Your task to perform on an android device: open a bookmark in the chrome app Image 0: 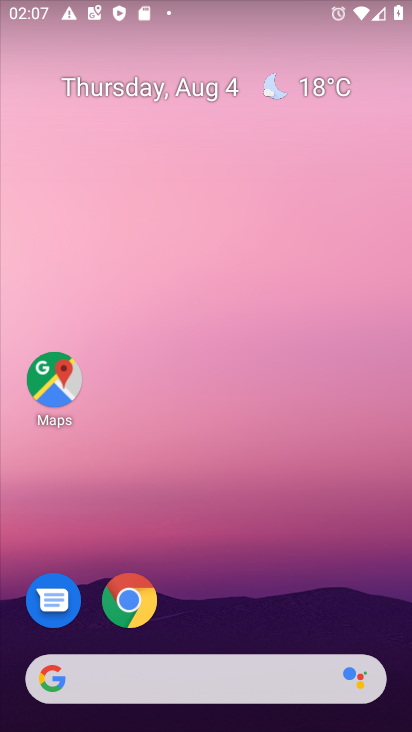
Step 0: press home button
Your task to perform on an android device: open a bookmark in the chrome app Image 1: 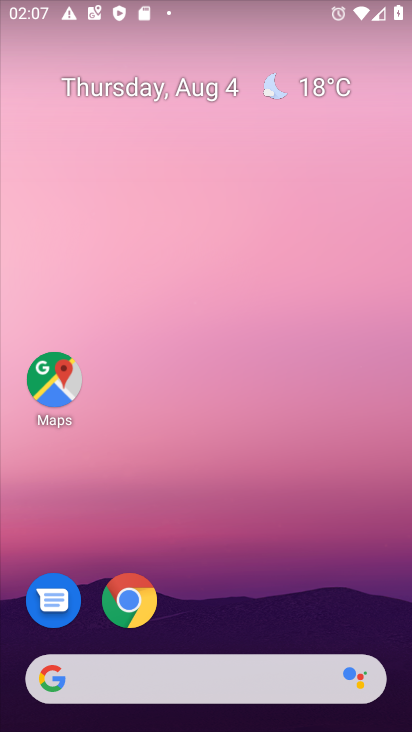
Step 1: click (131, 602)
Your task to perform on an android device: open a bookmark in the chrome app Image 2: 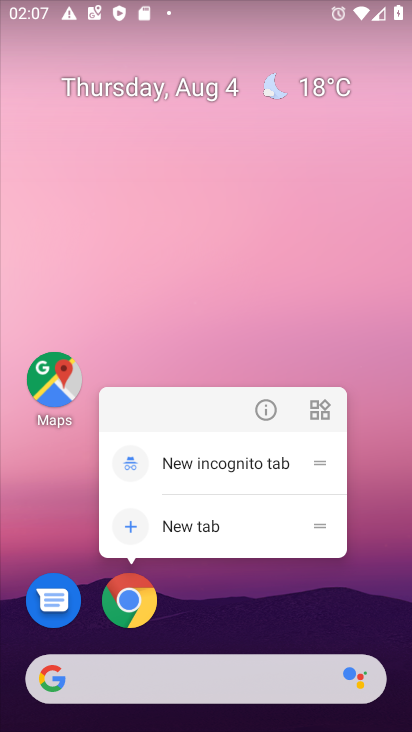
Step 2: click (131, 602)
Your task to perform on an android device: open a bookmark in the chrome app Image 3: 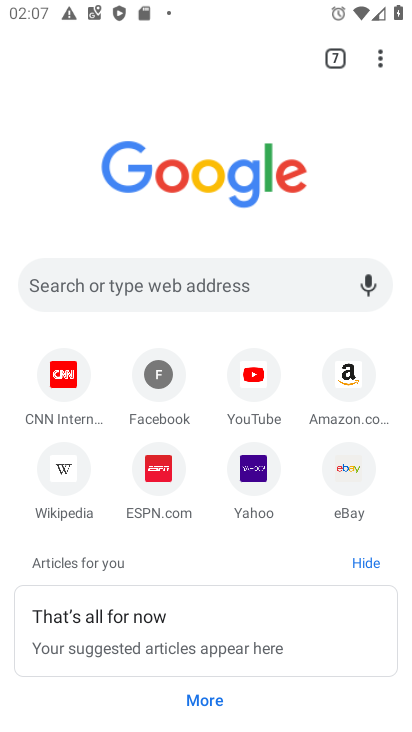
Step 3: drag from (381, 57) to (206, 299)
Your task to perform on an android device: open a bookmark in the chrome app Image 4: 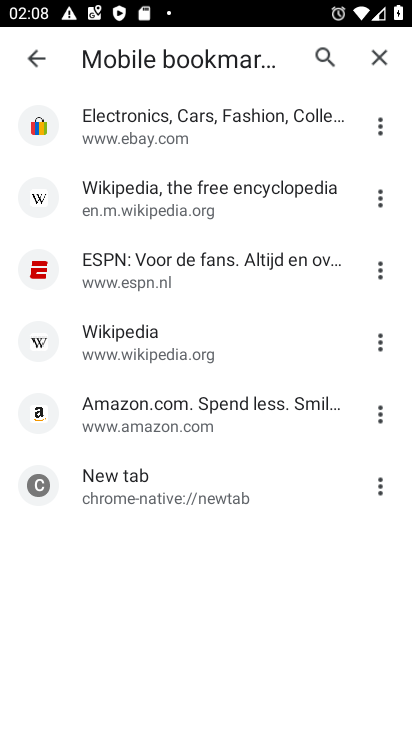
Step 4: click (194, 125)
Your task to perform on an android device: open a bookmark in the chrome app Image 5: 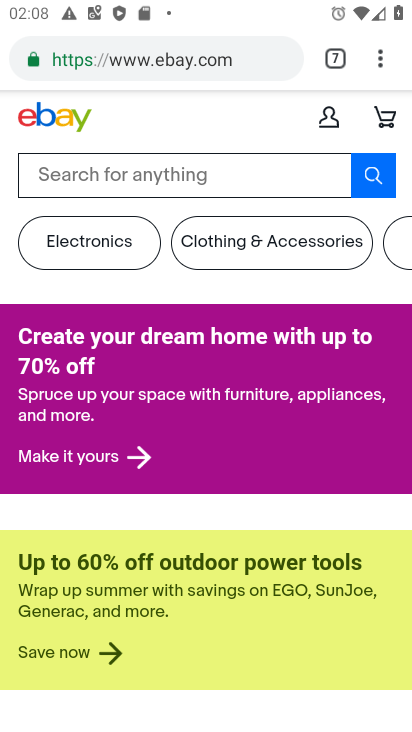
Step 5: task complete